Your task to perform on an android device: turn on translation in the chrome app Image 0: 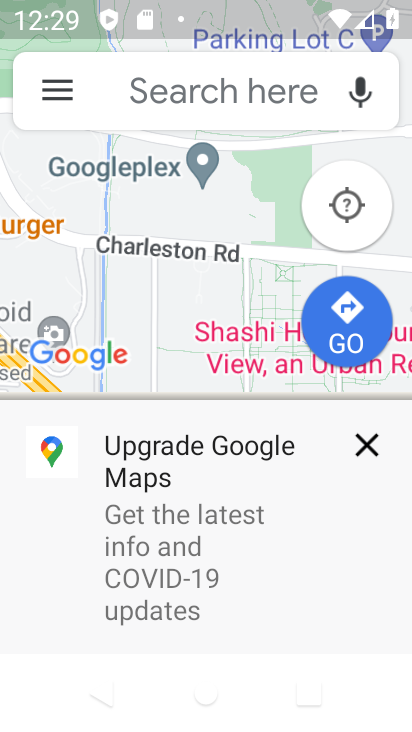
Step 0: press home button
Your task to perform on an android device: turn on translation in the chrome app Image 1: 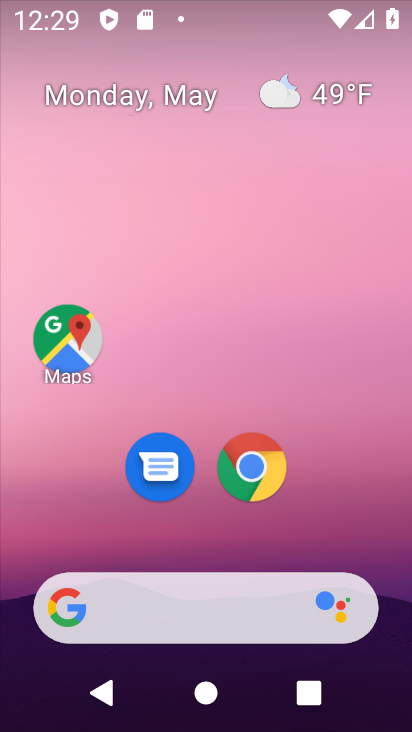
Step 1: drag from (328, 506) to (321, 120)
Your task to perform on an android device: turn on translation in the chrome app Image 2: 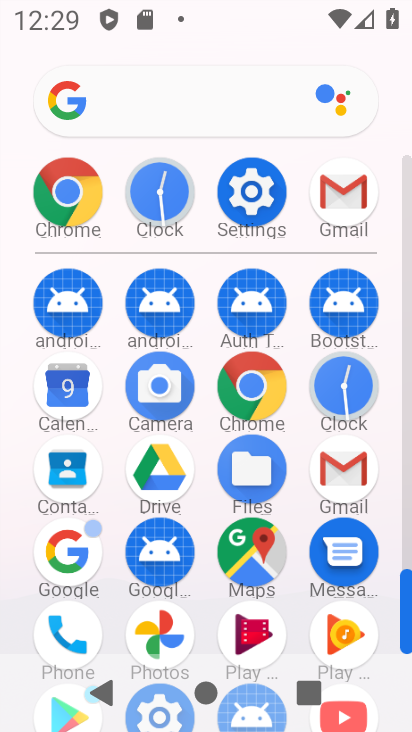
Step 2: click (257, 391)
Your task to perform on an android device: turn on translation in the chrome app Image 3: 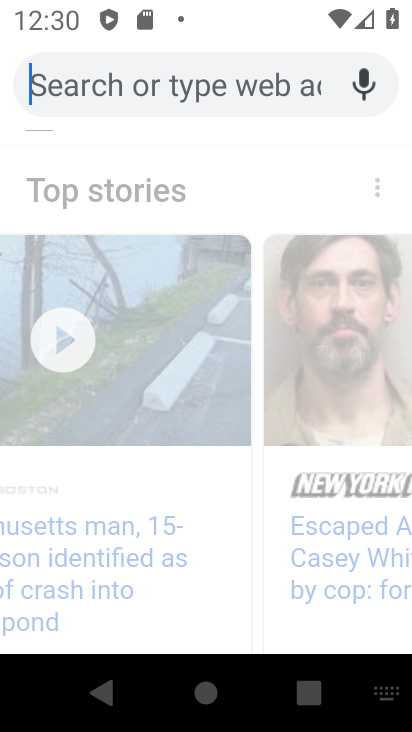
Step 3: click (106, 713)
Your task to perform on an android device: turn on translation in the chrome app Image 4: 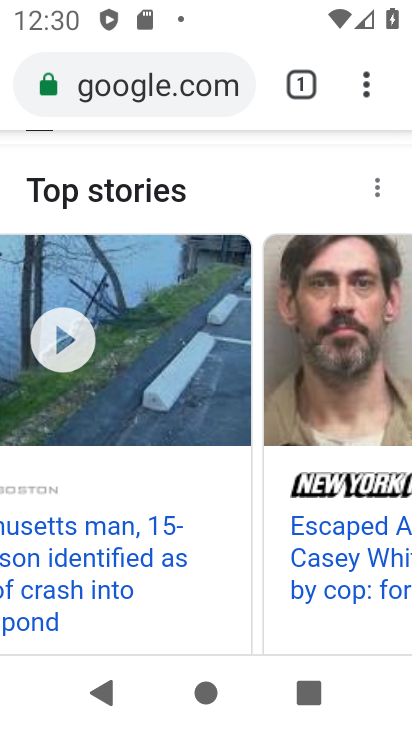
Step 4: click (358, 94)
Your task to perform on an android device: turn on translation in the chrome app Image 5: 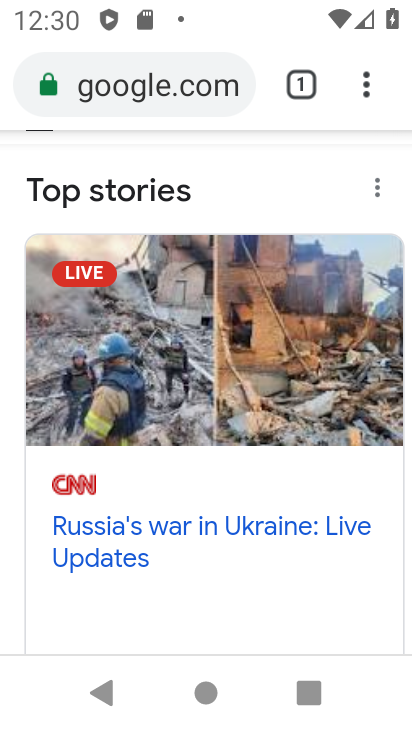
Step 5: drag from (363, 95) to (231, 524)
Your task to perform on an android device: turn on translation in the chrome app Image 6: 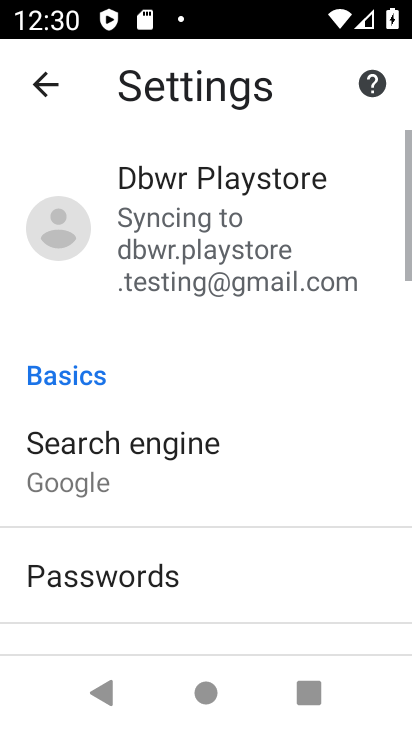
Step 6: drag from (256, 577) to (277, 291)
Your task to perform on an android device: turn on translation in the chrome app Image 7: 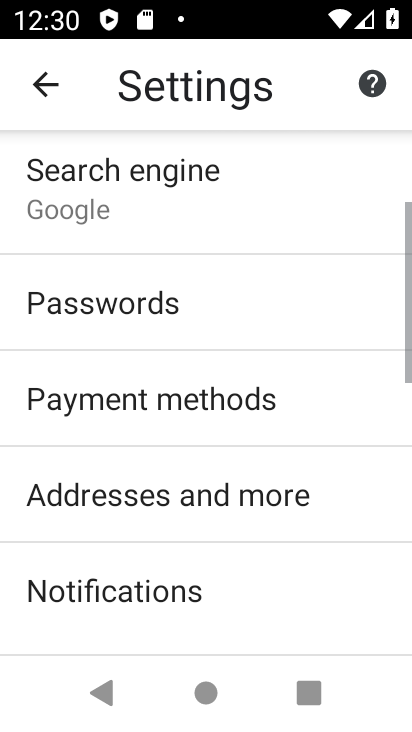
Step 7: drag from (313, 574) to (315, 240)
Your task to perform on an android device: turn on translation in the chrome app Image 8: 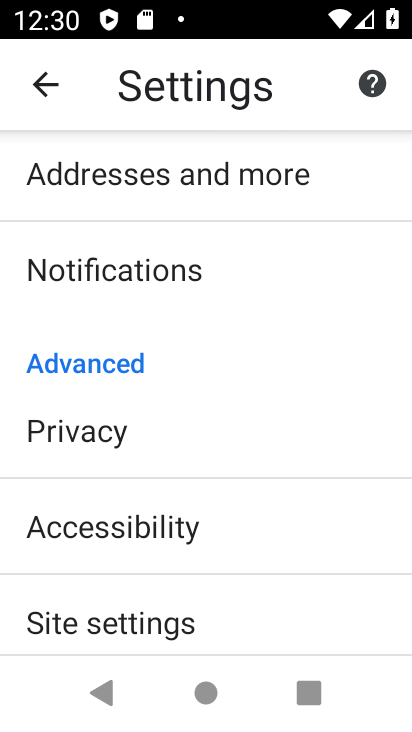
Step 8: drag from (178, 597) to (192, 296)
Your task to perform on an android device: turn on translation in the chrome app Image 9: 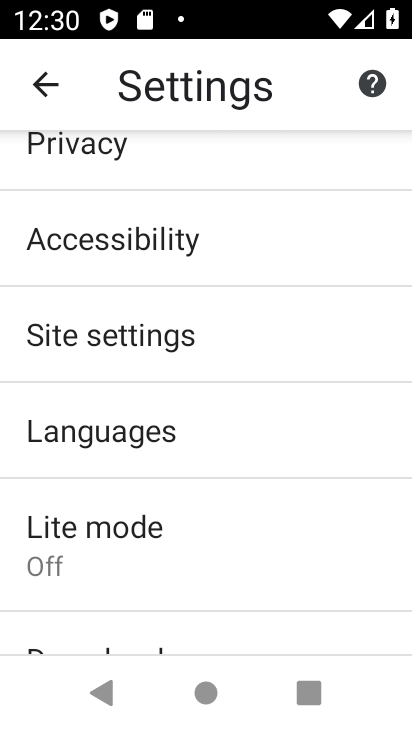
Step 9: click (140, 453)
Your task to perform on an android device: turn on translation in the chrome app Image 10: 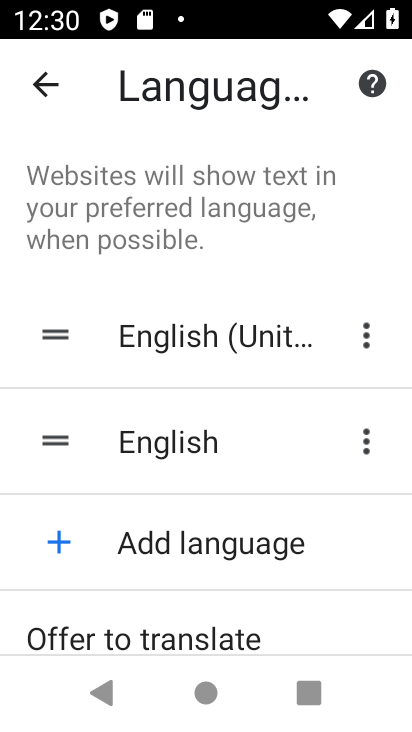
Step 10: task complete